Your task to perform on an android device: open app "Truecaller" (install if not already installed) Image 0: 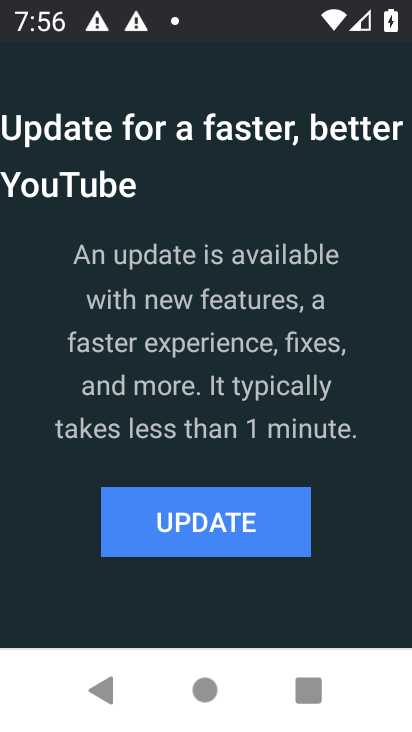
Step 0: press home button
Your task to perform on an android device: open app "Truecaller" (install if not already installed) Image 1: 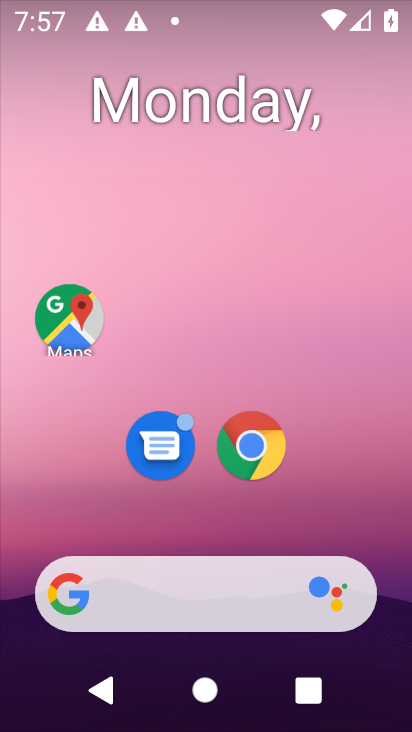
Step 1: drag from (397, 595) to (229, 109)
Your task to perform on an android device: open app "Truecaller" (install if not already installed) Image 2: 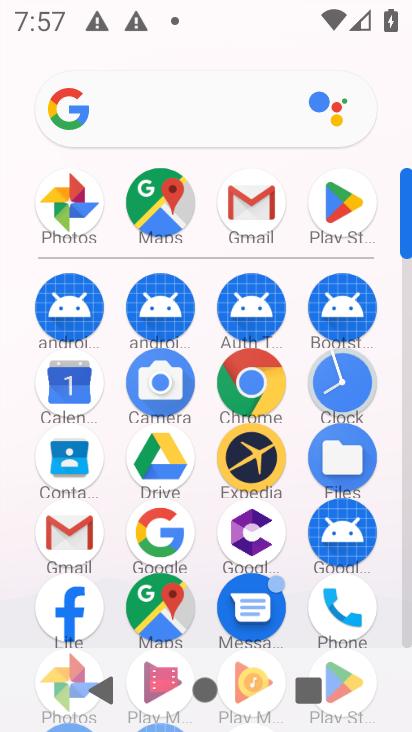
Step 2: click (344, 221)
Your task to perform on an android device: open app "Truecaller" (install if not already installed) Image 3: 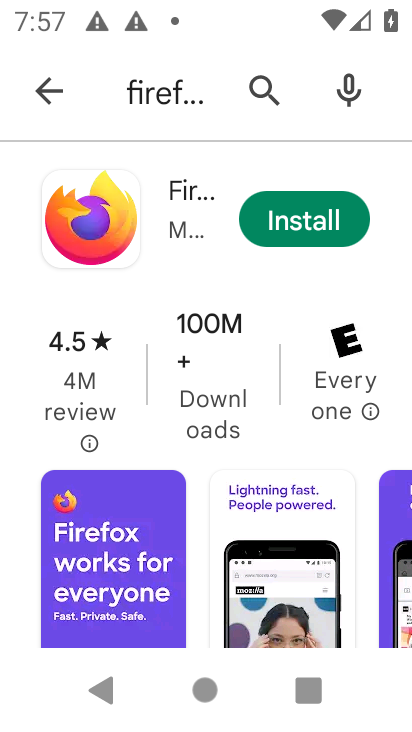
Step 3: press back button
Your task to perform on an android device: open app "Truecaller" (install if not already installed) Image 4: 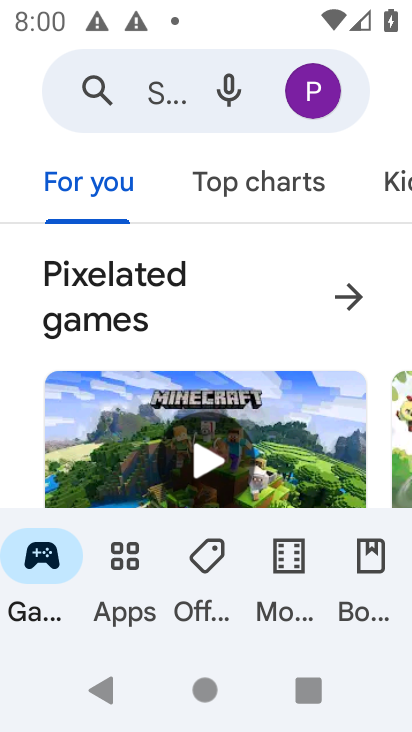
Step 4: click (143, 91)
Your task to perform on an android device: open app "Truecaller" (install if not already installed) Image 5: 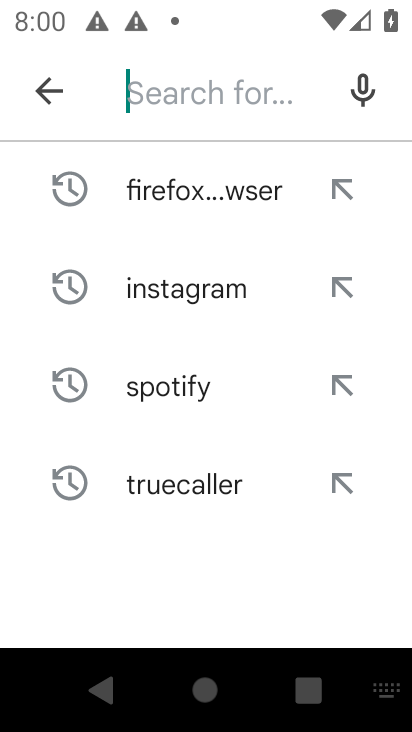
Step 5: type "Truecaller"
Your task to perform on an android device: open app "Truecaller" (install if not already installed) Image 6: 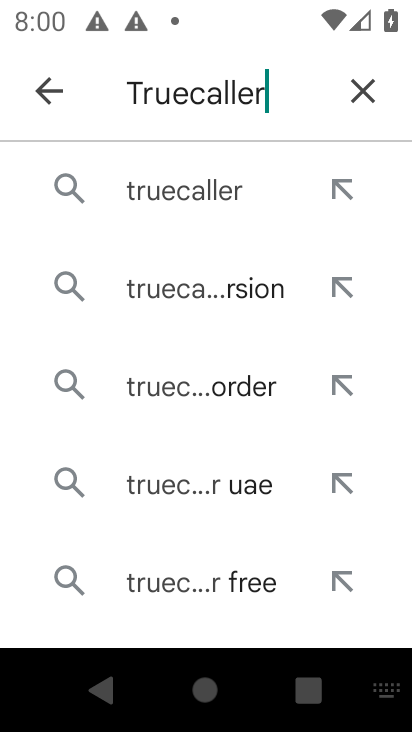
Step 6: click (194, 210)
Your task to perform on an android device: open app "Truecaller" (install if not already installed) Image 7: 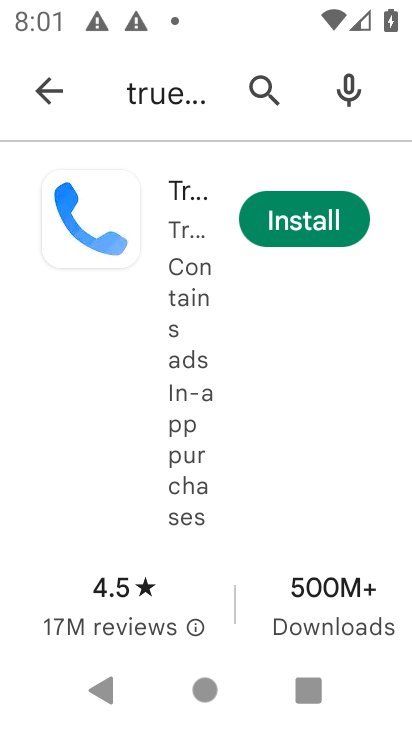
Step 7: task complete